Your task to perform on an android device: turn off location history Image 0: 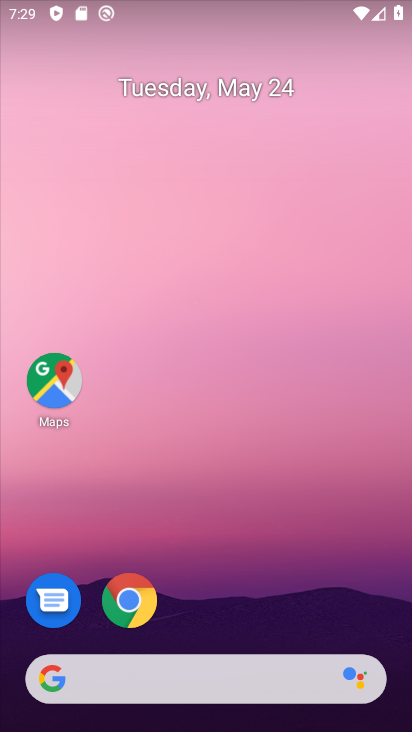
Step 0: drag from (380, 596) to (390, 99)
Your task to perform on an android device: turn off location history Image 1: 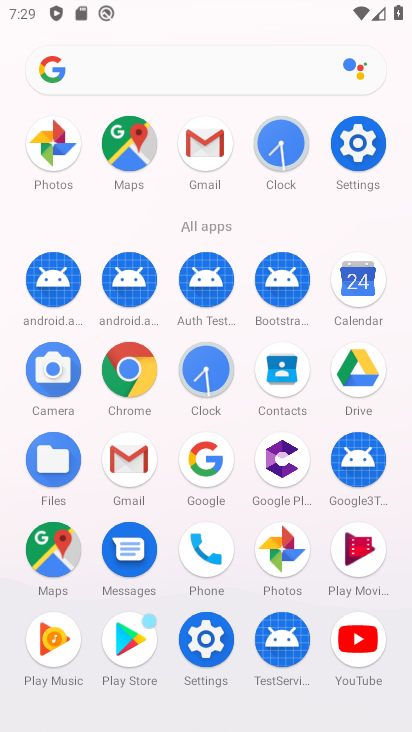
Step 1: click (365, 159)
Your task to perform on an android device: turn off location history Image 2: 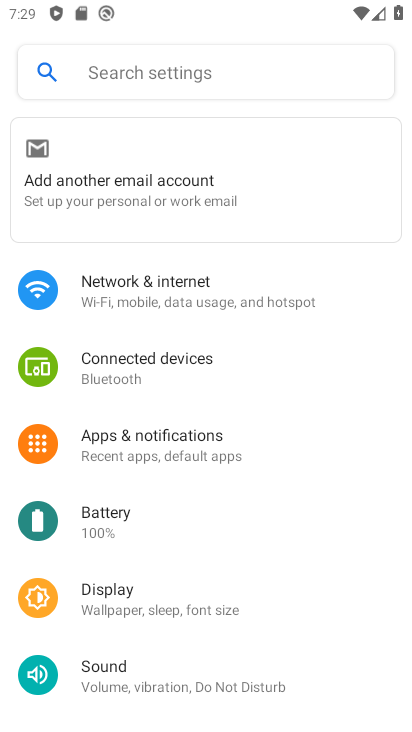
Step 2: drag from (362, 543) to (386, 405)
Your task to perform on an android device: turn off location history Image 3: 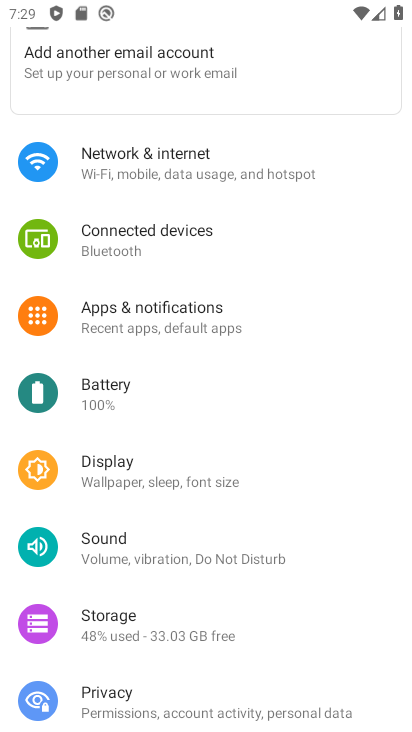
Step 3: drag from (378, 516) to (361, 356)
Your task to perform on an android device: turn off location history Image 4: 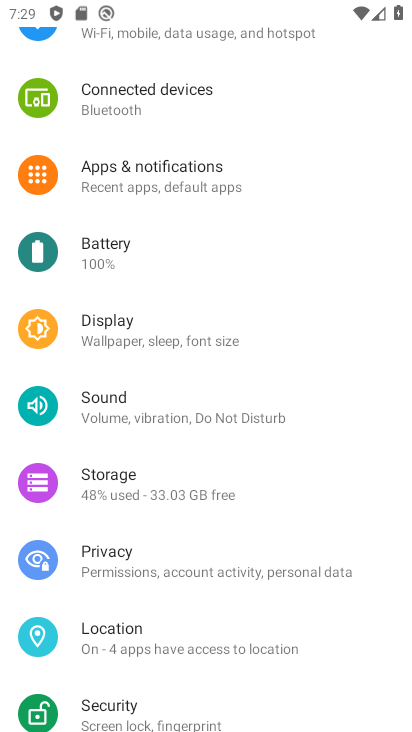
Step 4: drag from (363, 533) to (379, 334)
Your task to perform on an android device: turn off location history Image 5: 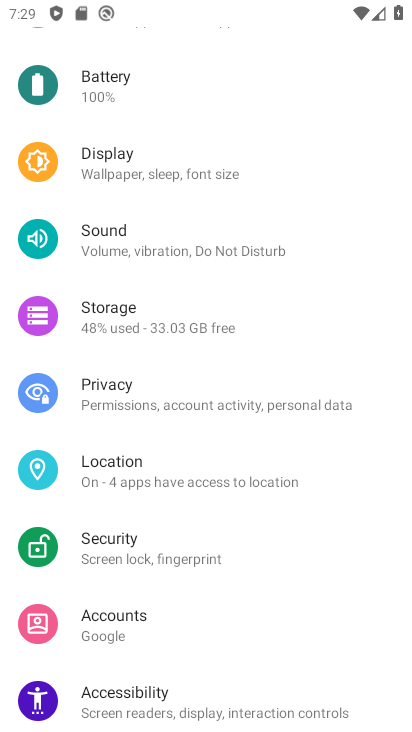
Step 5: click (257, 487)
Your task to perform on an android device: turn off location history Image 6: 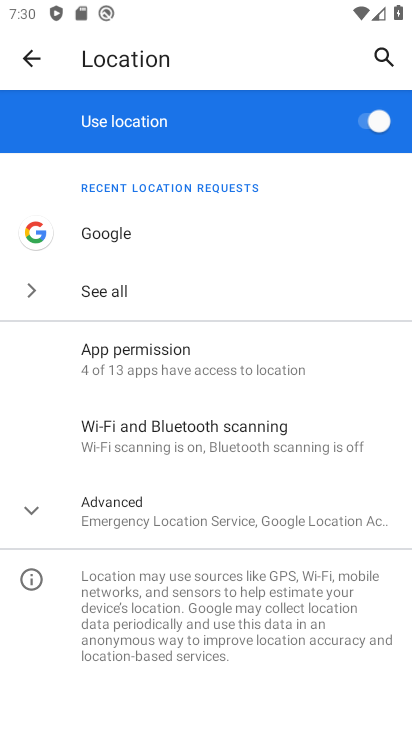
Step 6: click (251, 505)
Your task to perform on an android device: turn off location history Image 7: 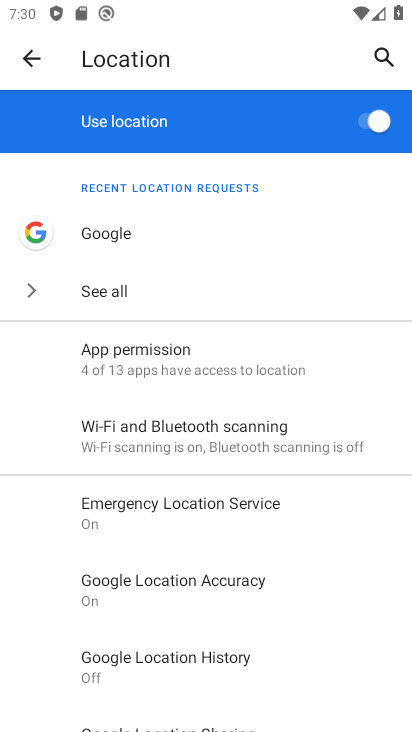
Step 7: task complete